Your task to perform on an android device: Do I have any events tomorrow? Image 0: 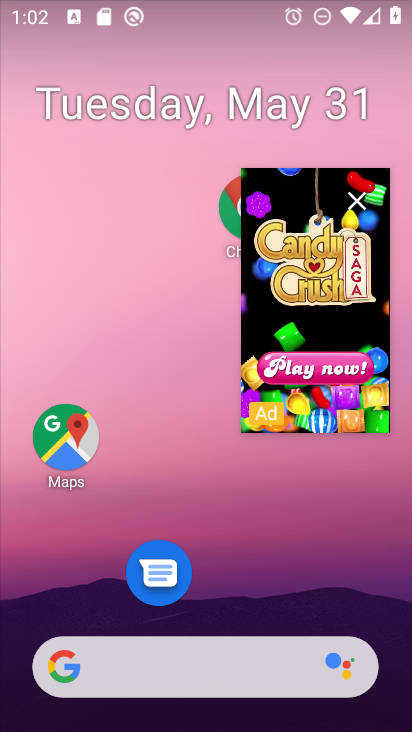
Step 0: click (354, 209)
Your task to perform on an android device: Do I have any events tomorrow? Image 1: 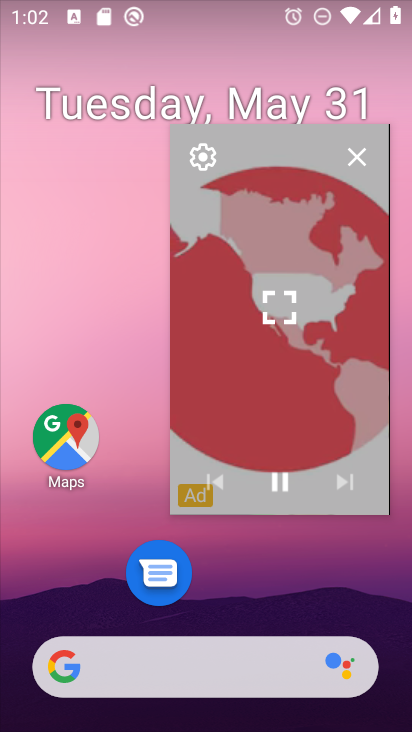
Step 1: click (364, 158)
Your task to perform on an android device: Do I have any events tomorrow? Image 2: 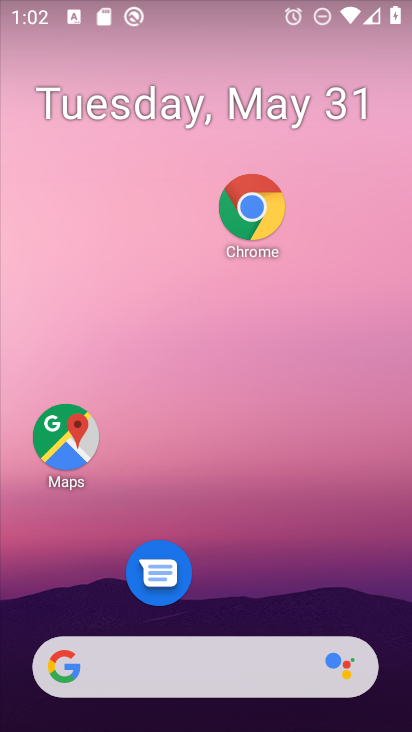
Step 2: drag from (205, 609) to (207, 153)
Your task to perform on an android device: Do I have any events tomorrow? Image 3: 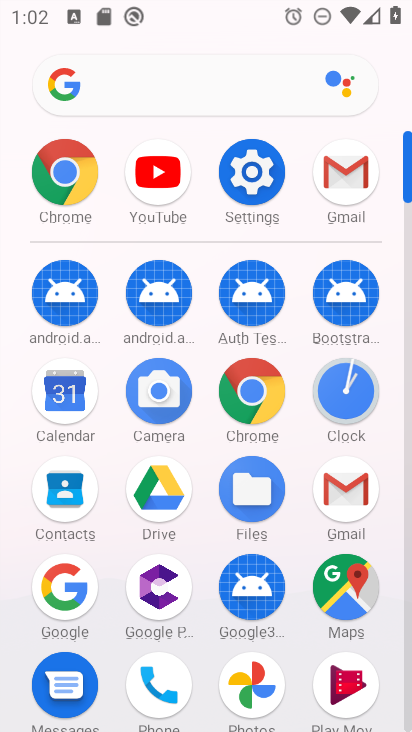
Step 3: click (61, 408)
Your task to perform on an android device: Do I have any events tomorrow? Image 4: 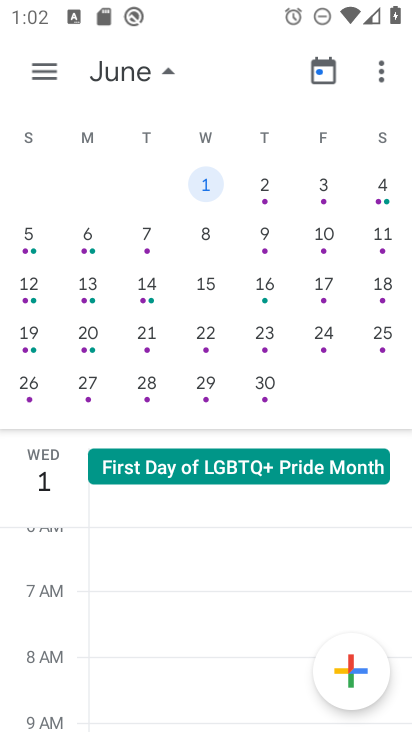
Step 4: drag from (47, 281) to (408, 272)
Your task to perform on an android device: Do I have any events tomorrow? Image 5: 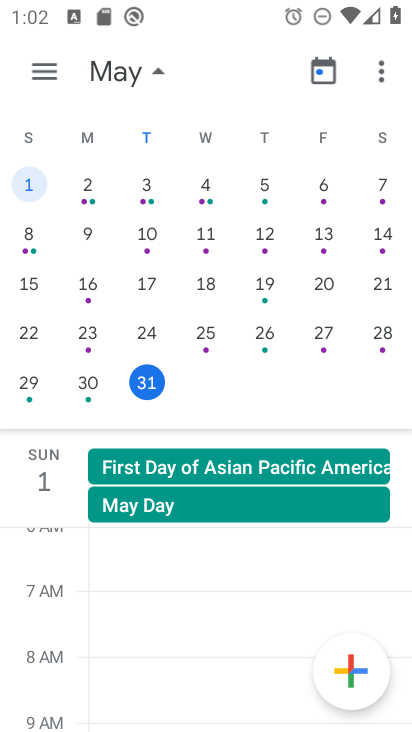
Step 5: drag from (134, 308) to (355, 305)
Your task to perform on an android device: Do I have any events tomorrow? Image 6: 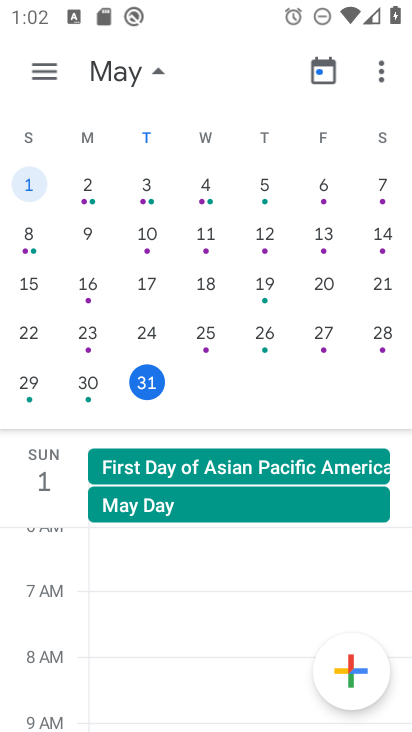
Step 6: click (149, 386)
Your task to perform on an android device: Do I have any events tomorrow? Image 7: 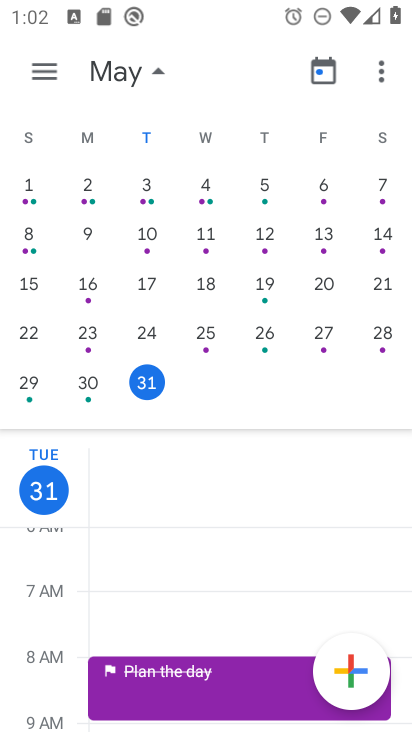
Step 7: task complete